Your task to perform on an android device: Go to privacy settings Image 0: 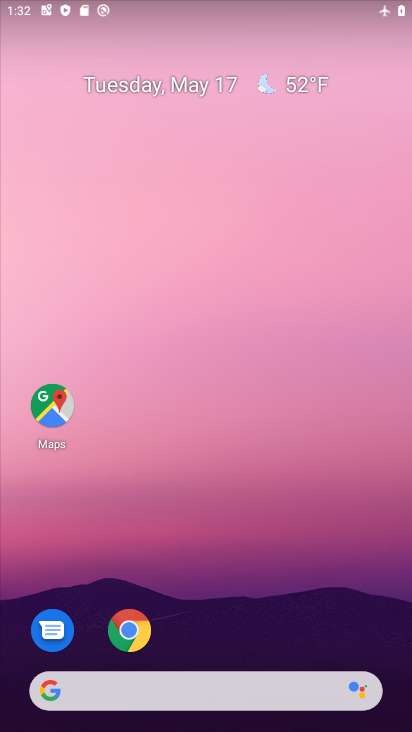
Step 0: drag from (208, 556) to (280, 113)
Your task to perform on an android device: Go to privacy settings Image 1: 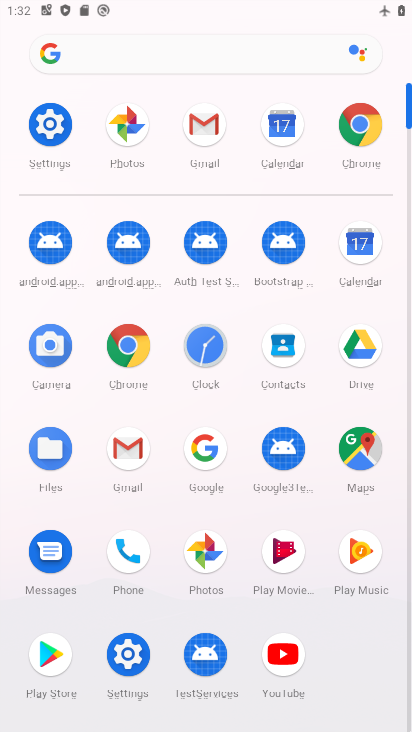
Step 1: click (47, 137)
Your task to perform on an android device: Go to privacy settings Image 2: 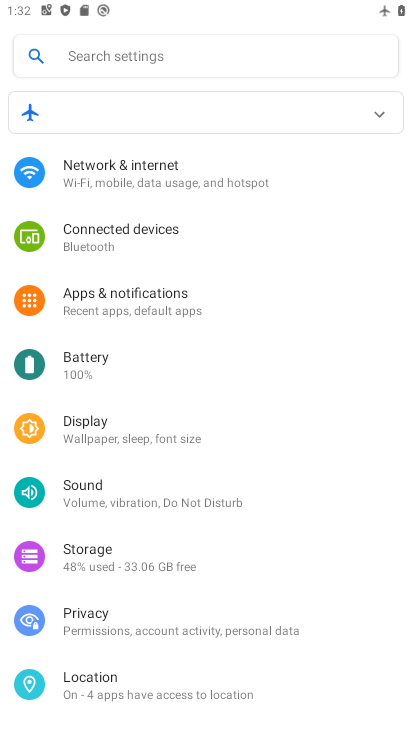
Step 2: click (108, 623)
Your task to perform on an android device: Go to privacy settings Image 3: 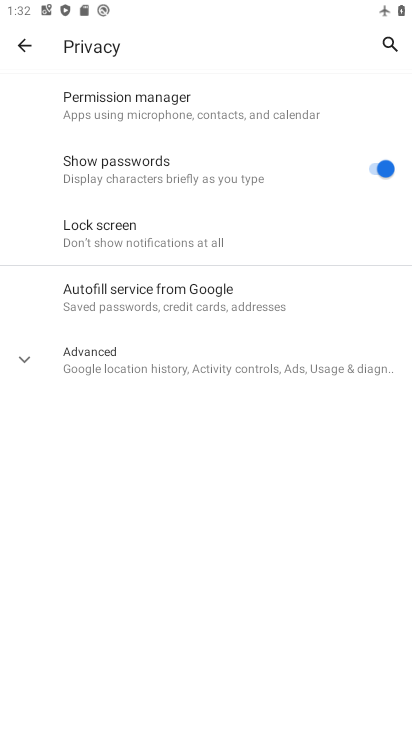
Step 3: task complete